Your task to perform on an android device: check the backup settings in the google photos Image 0: 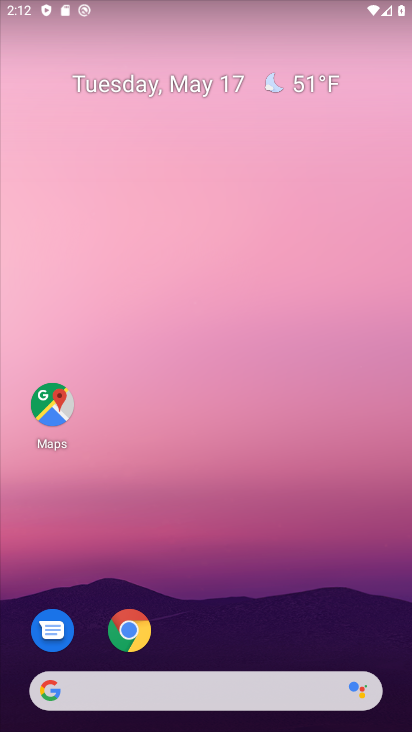
Step 0: click (51, 692)
Your task to perform on an android device: check the backup settings in the google photos Image 1: 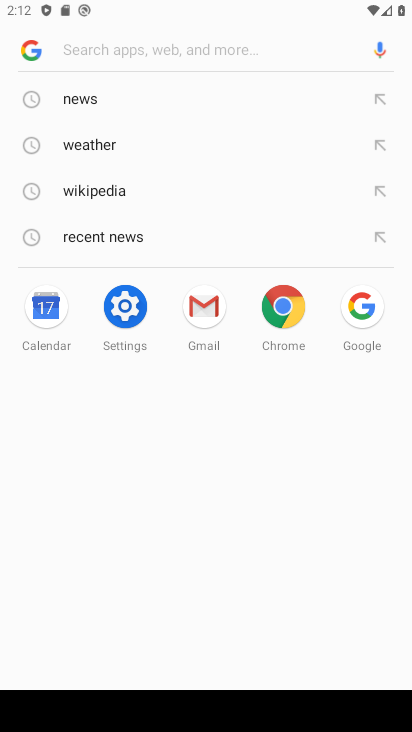
Step 1: click (29, 60)
Your task to perform on an android device: check the backup settings in the google photos Image 2: 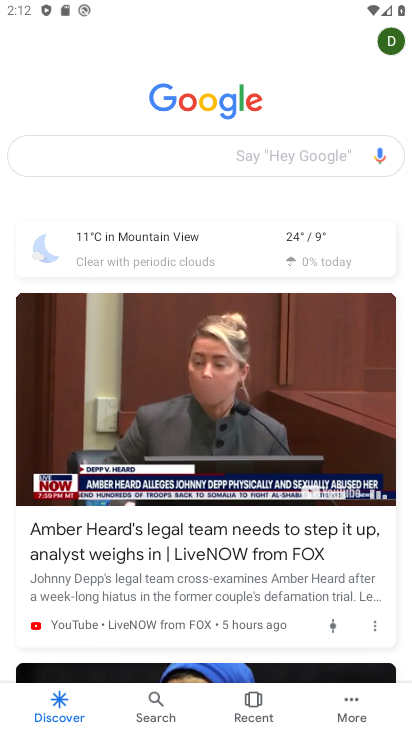
Step 2: click (351, 716)
Your task to perform on an android device: check the backup settings in the google photos Image 3: 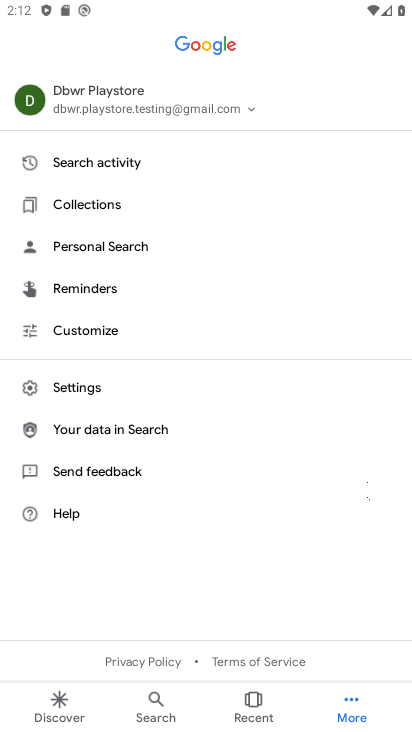
Step 3: click (80, 384)
Your task to perform on an android device: check the backup settings in the google photos Image 4: 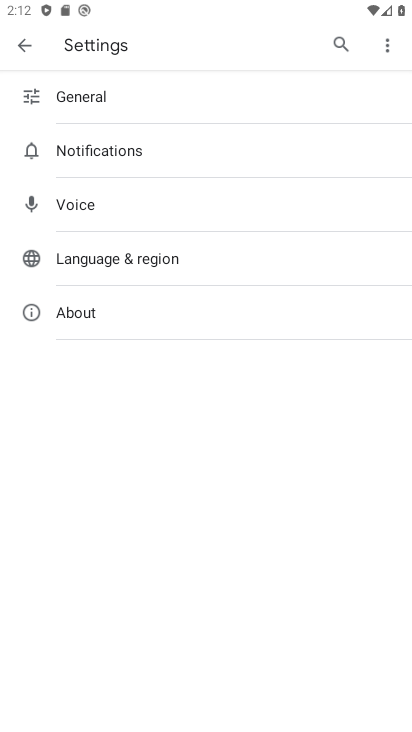
Step 4: press back button
Your task to perform on an android device: check the backup settings in the google photos Image 5: 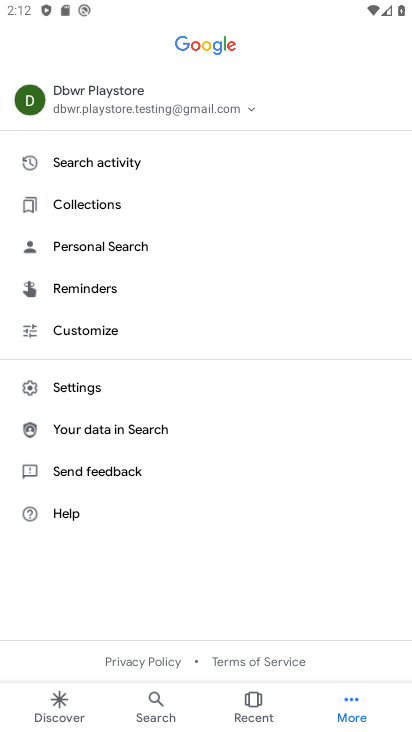
Step 5: press back button
Your task to perform on an android device: check the backup settings in the google photos Image 6: 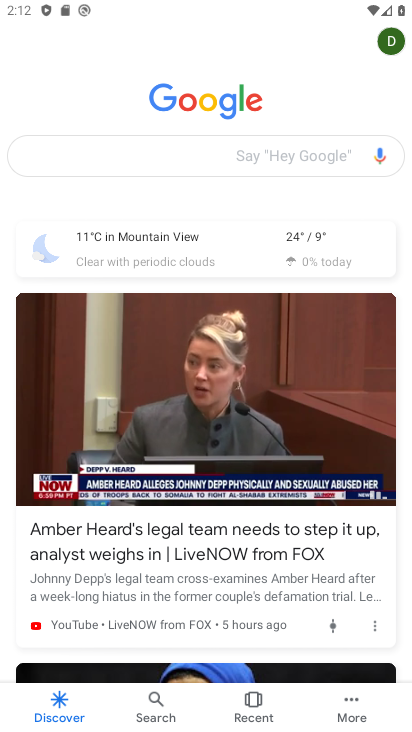
Step 6: press back button
Your task to perform on an android device: check the backup settings in the google photos Image 7: 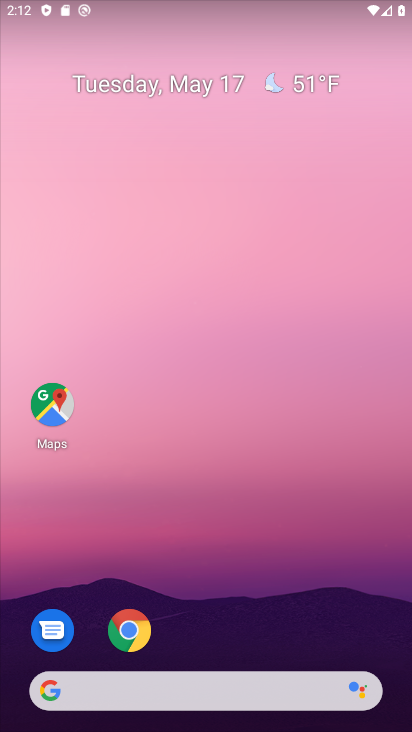
Step 7: drag from (245, 629) to (255, 74)
Your task to perform on an android device: check the backup settings in the google photos Image 8: 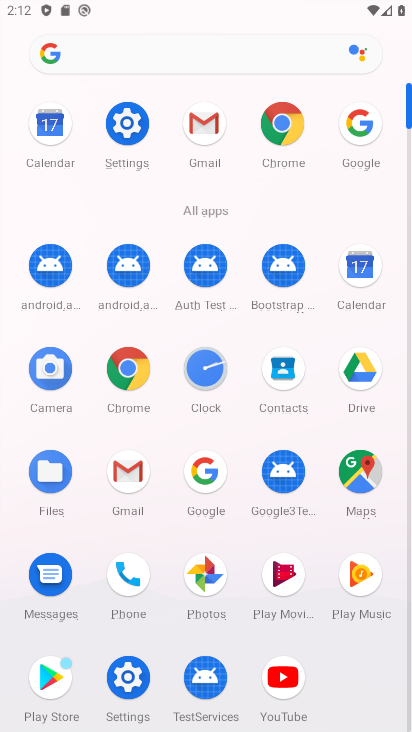
Step 8: click (197, 583)
Your task to perform on an android device: check the backup settings in the google photos Image 9: 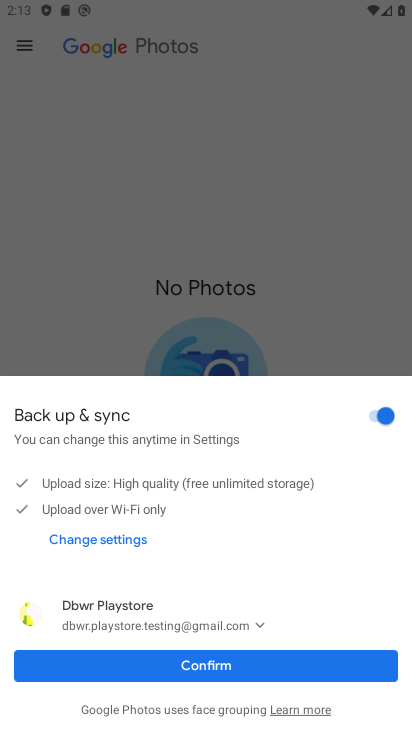
Step 9: click (225, 660)
Your task to perform on an android device: check the backup settings in the google photos Image 10: 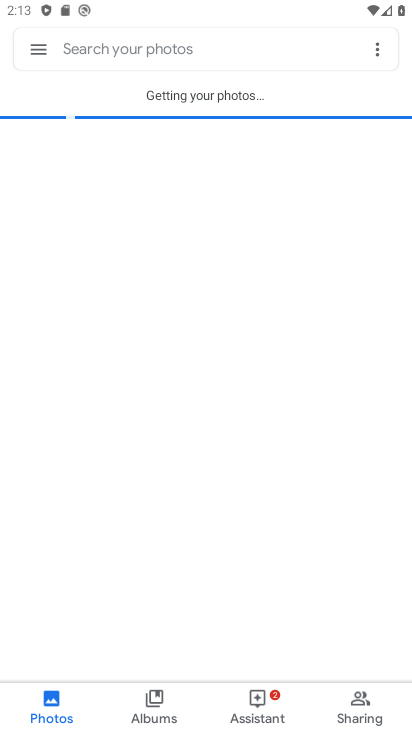
Step 10: click (45, 55)
Your task to perform on an android device: check the backup settings in the google photos Image 11: 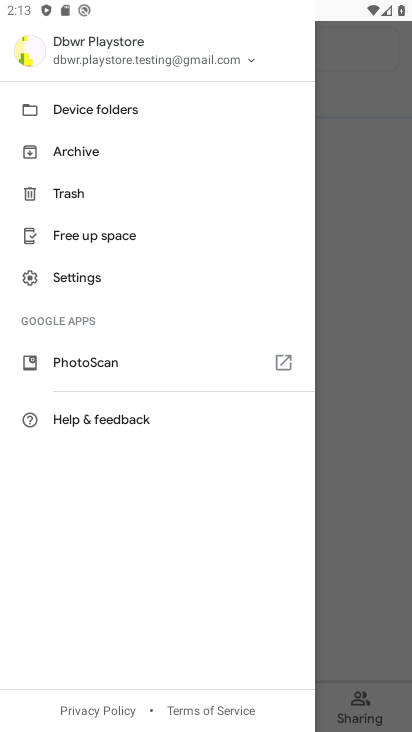
Step 11: click (118, 45)
Your task to perform on an android device: check the backup settings in the google photos Image 12: 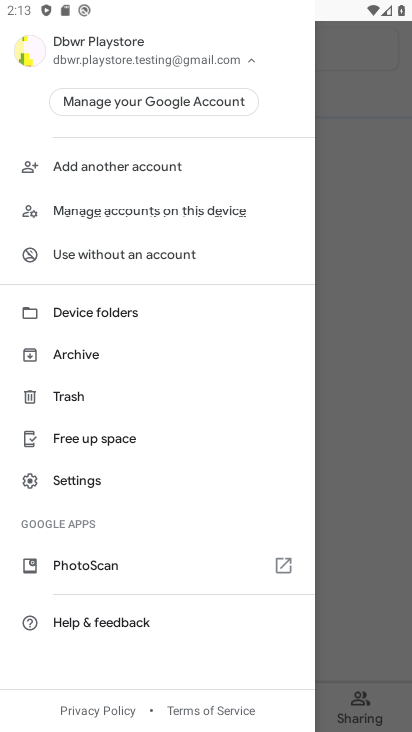
Step 12: click (78, 480)
Your task to perform on an android device: check the backup settings in the google photos Image 13: 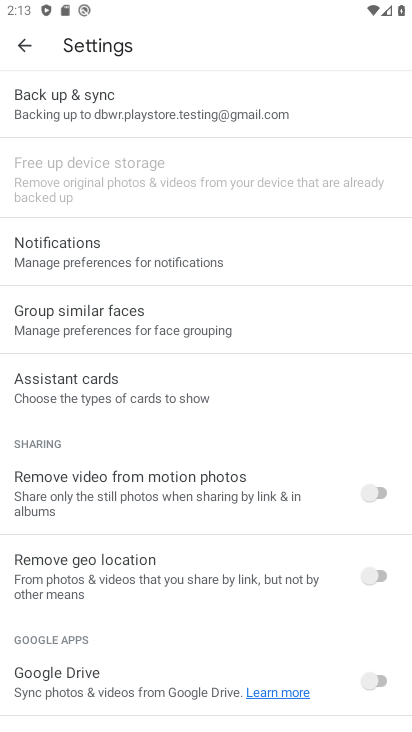
Step 13: click (112, 137)
Your task to perform on an android device: check the backup settings in the google photos Image 14: 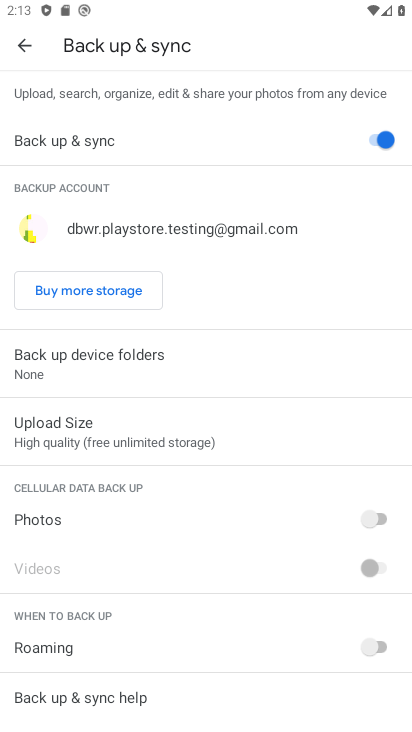
Step 14: task complete